Your task to perform on an android device: remove spam from my inbox in the gmail app Image 0: 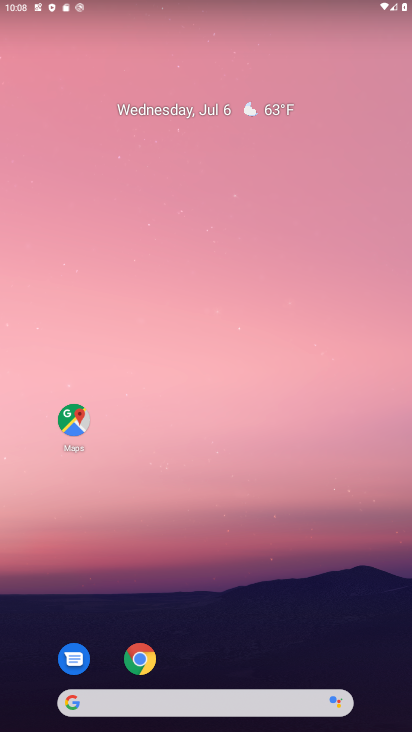
Step 0: drag from (186, 600) to (284, 93)
Your task to perform on an android device: remove spam from my inbox in the gmail app Image 1: 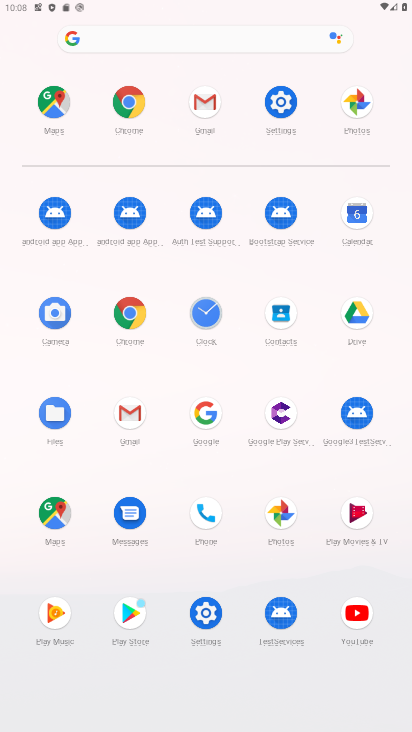
Step 1: click (132, 412)
Your task to perform on an android device: remove spam from my inbox in the gmail app Image 2: 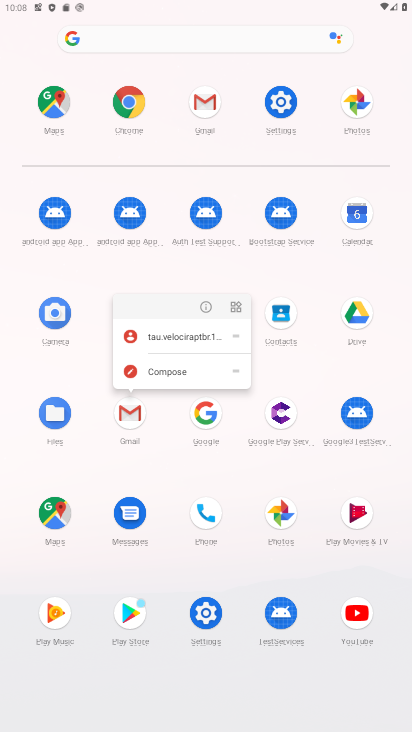
Step 2: click (199, 302)
Your task to perform on an android device: remove spam from my inbox in the gmail app Image 3: 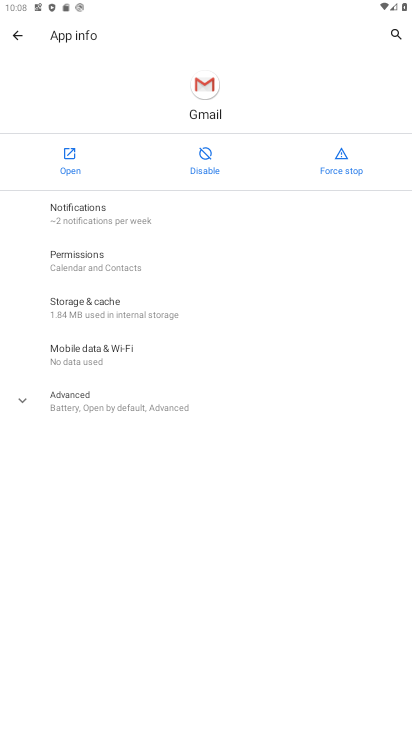
Step 3: click (62, 163)
Your task to perform on an android device: remove spam from my inbox in the gmail app Image 4: 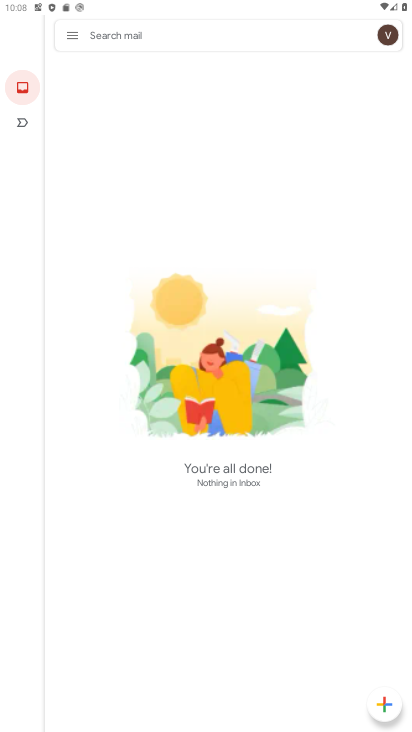
Step 4: drag from (207, 657) to (210, 454)
Your task to perform on an android device: remove spam from my inbox in the gmail app Image 5: 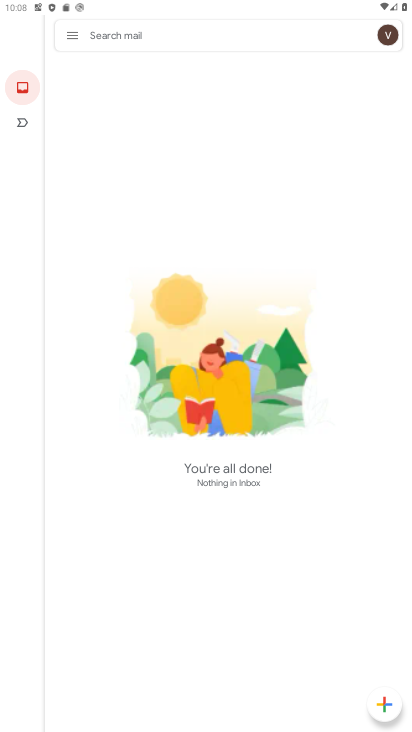
Step 5: click (67, 40)
Your task to perform on an android device: remove spam from my inbox in the gmail app Image 6: 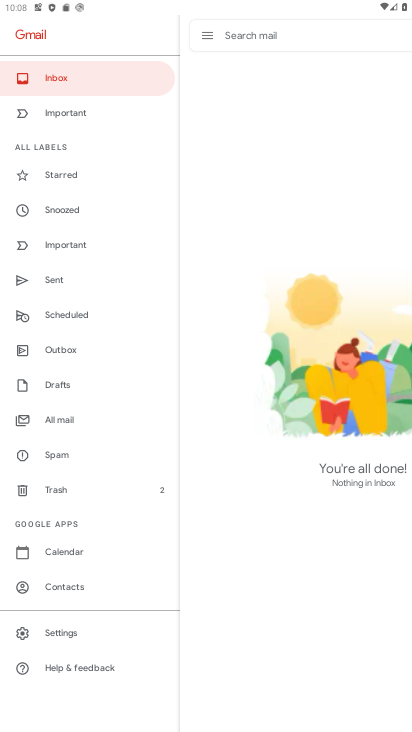
Step 6: click (57, 455)
Your task to perform on an android device: remove spam from my inbox in the gmail app Image 7: 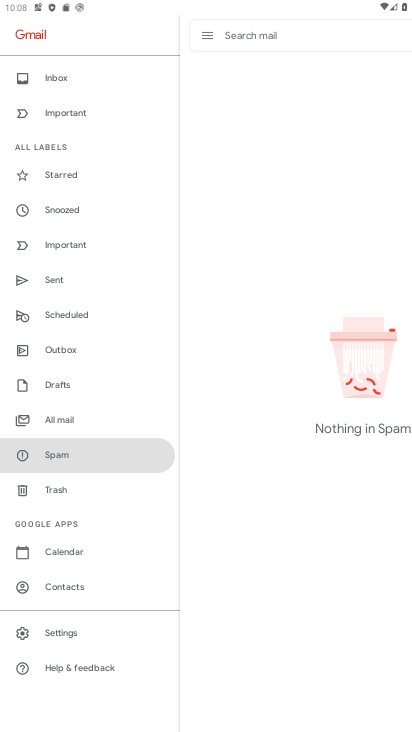
Step 7: task complete